Your task to perform on an android device: When is my next appointment? Image 0: 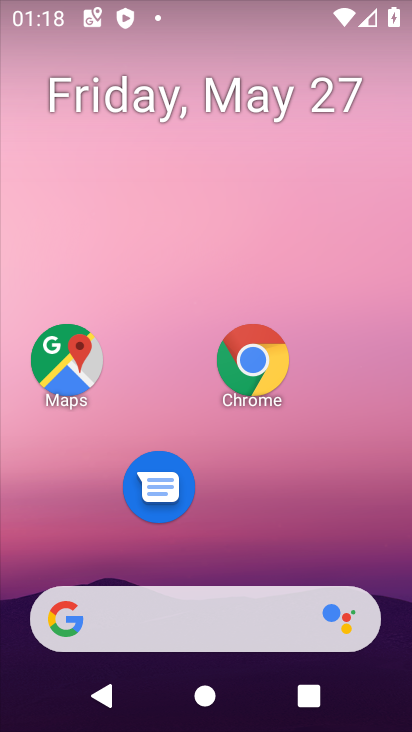
Step 0: drag from (243, 529) to (262, 60)
Your task to perform on an android device: When is my next appointment? Image 1: 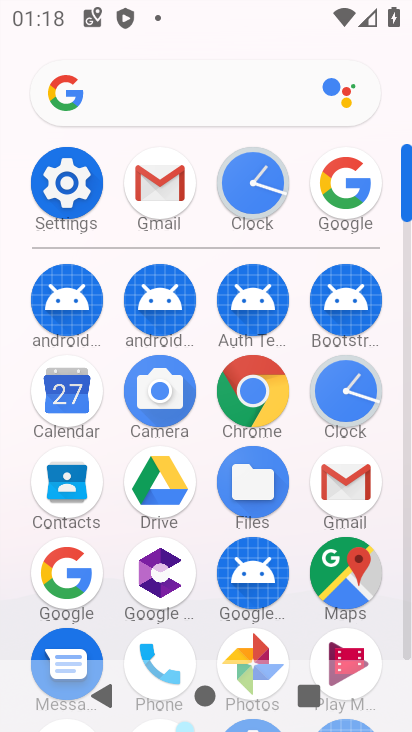
Step 1: click (70, 390)
Your task to perform on an android device: When is my next appointment? Image 2: 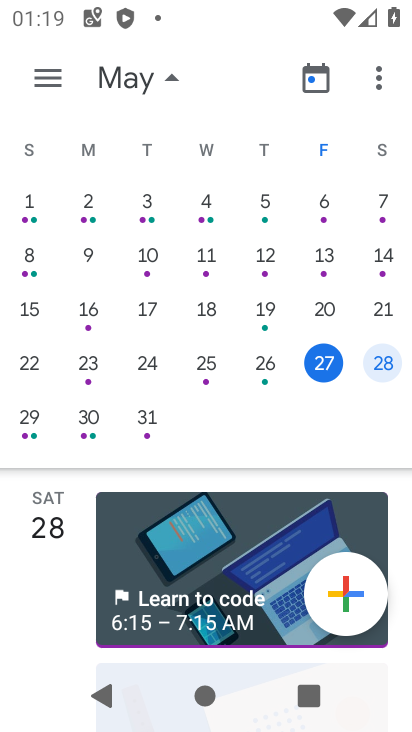
Step 2: click (380, 357)
Your task to perform on an android device: When is my next appointment? Image 3: 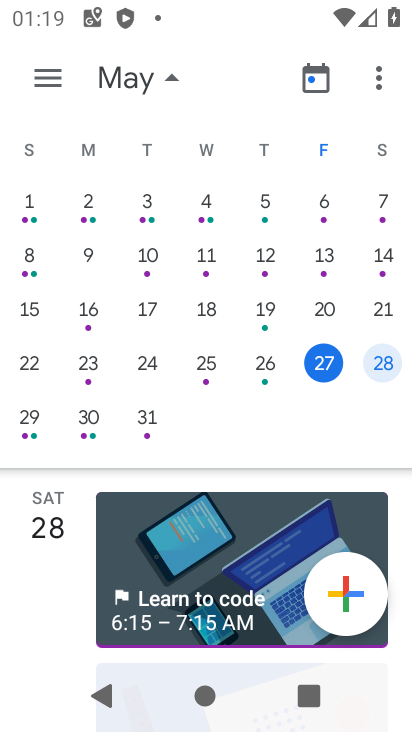
Step 3: task complete